Your task to perform on an android device: turn on translation in the chrome app Image 0: 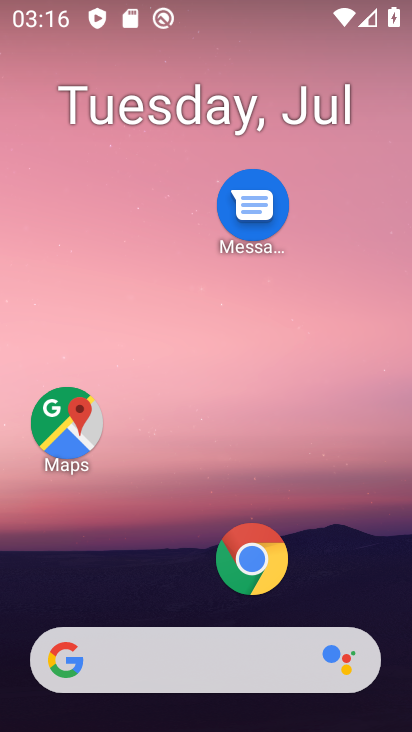
Step 0: click (254, 558)
Your task to perform on an android device: turn on translation in the chrome app Image 1: 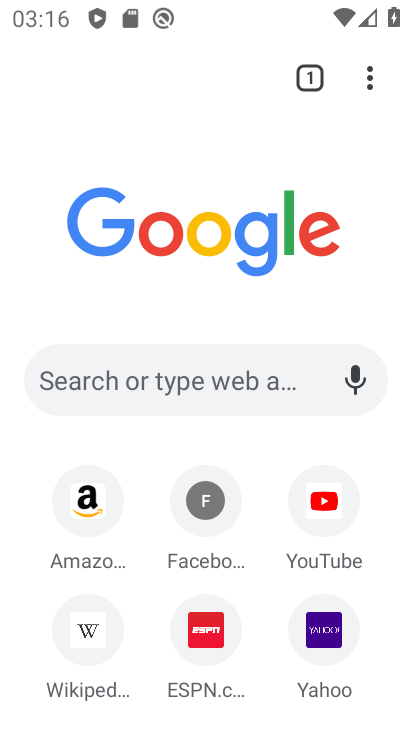
Step 1: drag from (373, 72) to (152, 650)
Your task to perform on an android device: turn on translation in the chrome app Image 2: 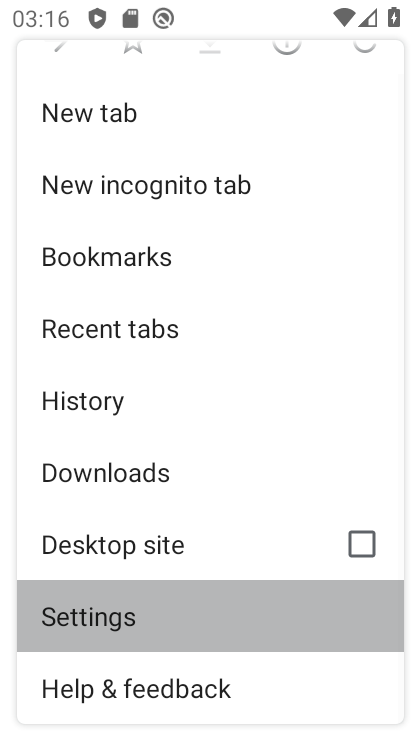
Step 2: click (152, 650)
Your task to perform on an android device: turn on translation in the chrome app Image 3: 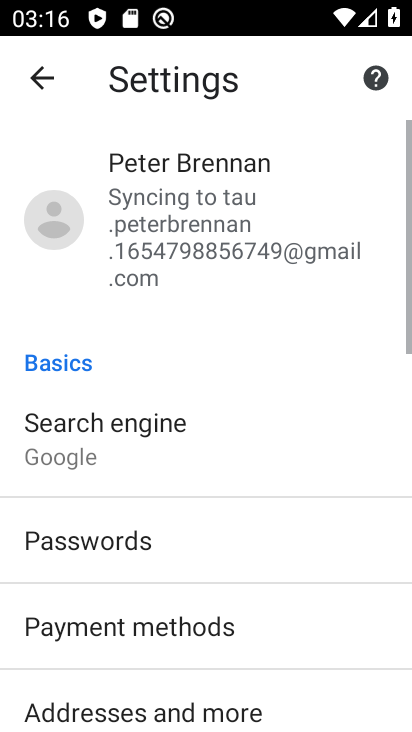
Step 3: drag from (176, 593) to (257, 60)
Your task to perform on an android device: turn on translation in the chrome app Image 4: 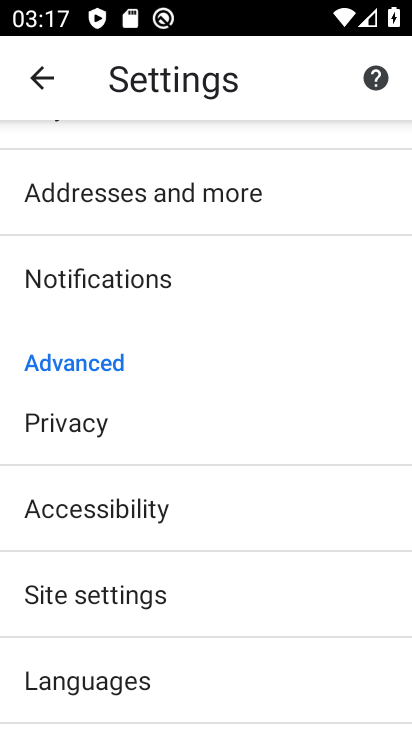
Step 4: click (97, 660)
Your task to perform on an android device: turn on translation in the chrome app Image 5: 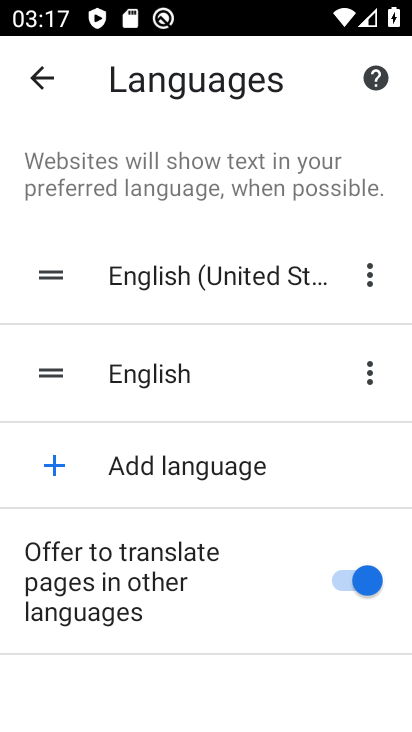
Step 5: task complete